Your task to perform on an android device: toggle pop-ups in chrome Image 0: 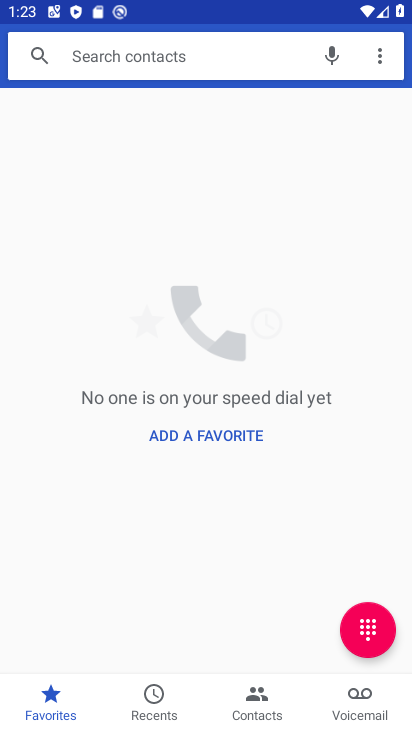
Step 0: task complete